Your task to perform on an android device: Search for "custom wallet" on Etsy. Image 0: 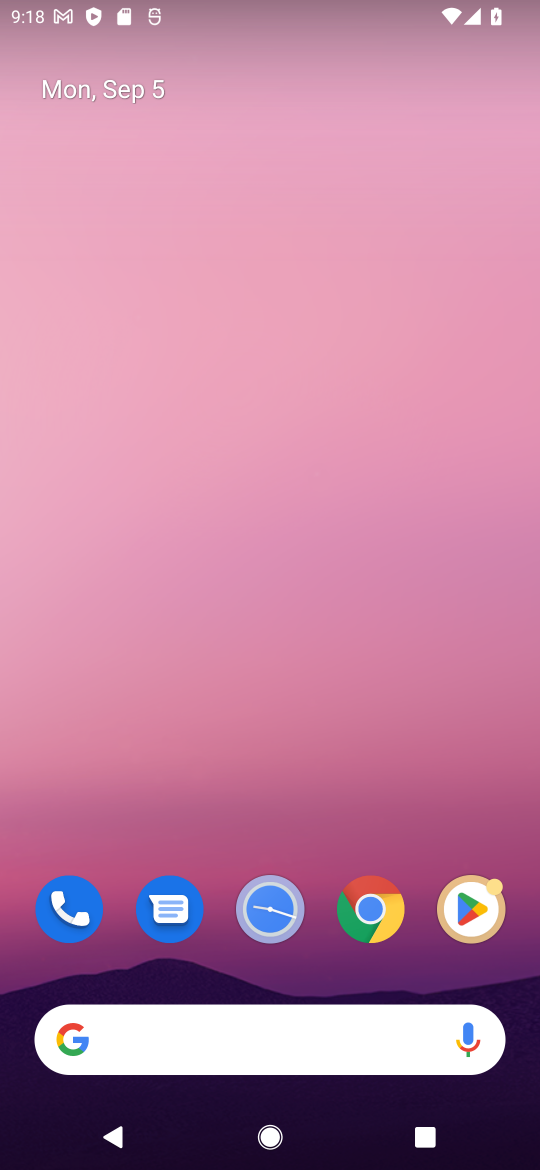
Step 0: click (384, 923)
Your task to perform on an android device: Search for "custom wallet" on Etsy. Image 1: 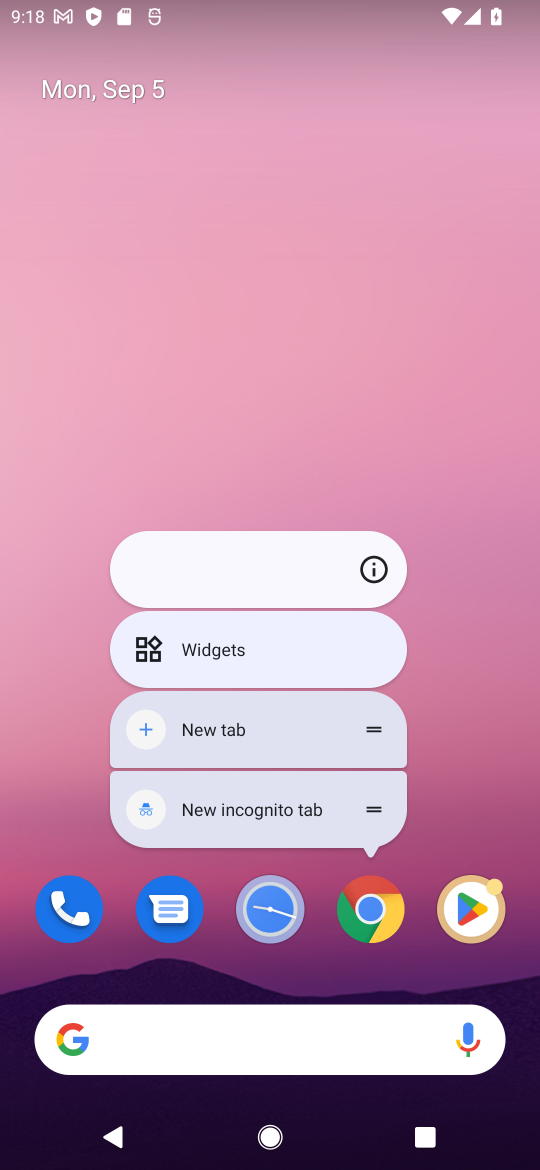
Step 1: click (387, 934)
Your task to perform on an android device: Search for "custom wallet" on Etsy. Image 2: 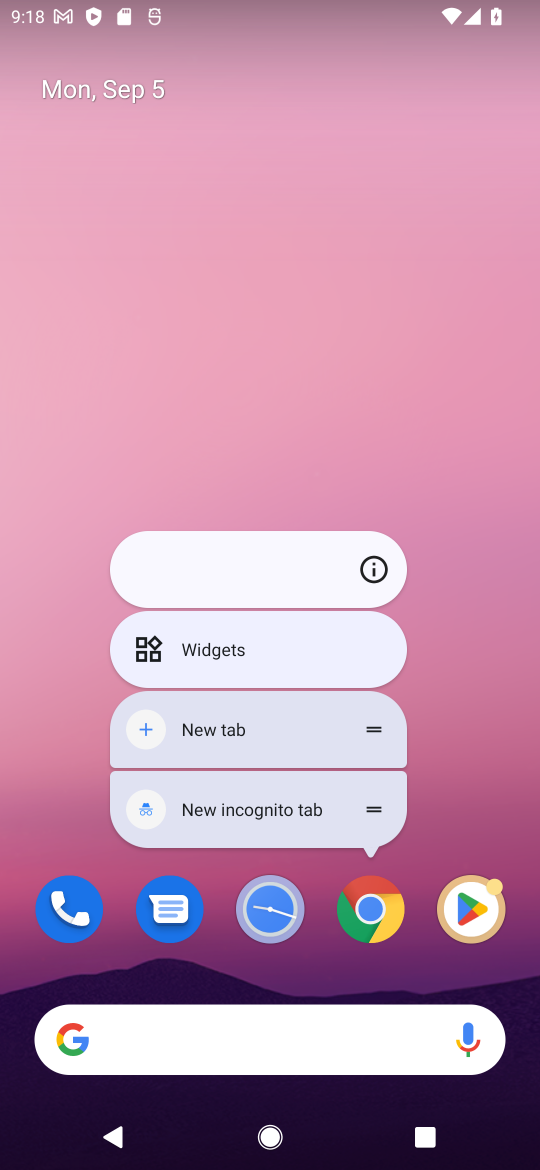
Step 2: click (360, 894)
Your task to perform on an android device: Search for "custom wallet" on Etsy. Image 3: 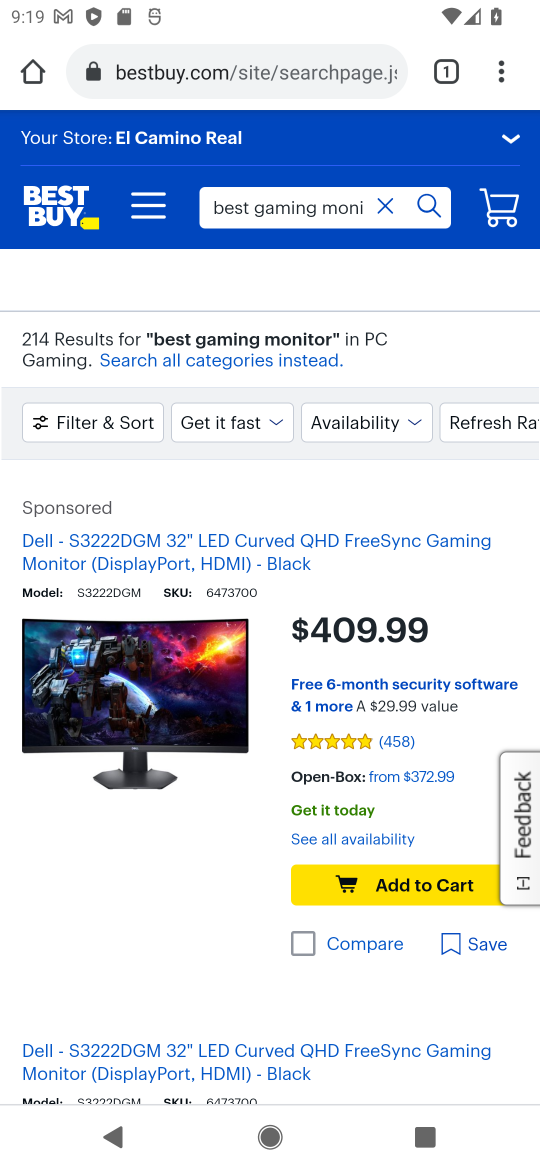
Step 3: click (324, 80)
Your task to perform on an android device: Search for "custom wallet" on Etsy. Image 4: 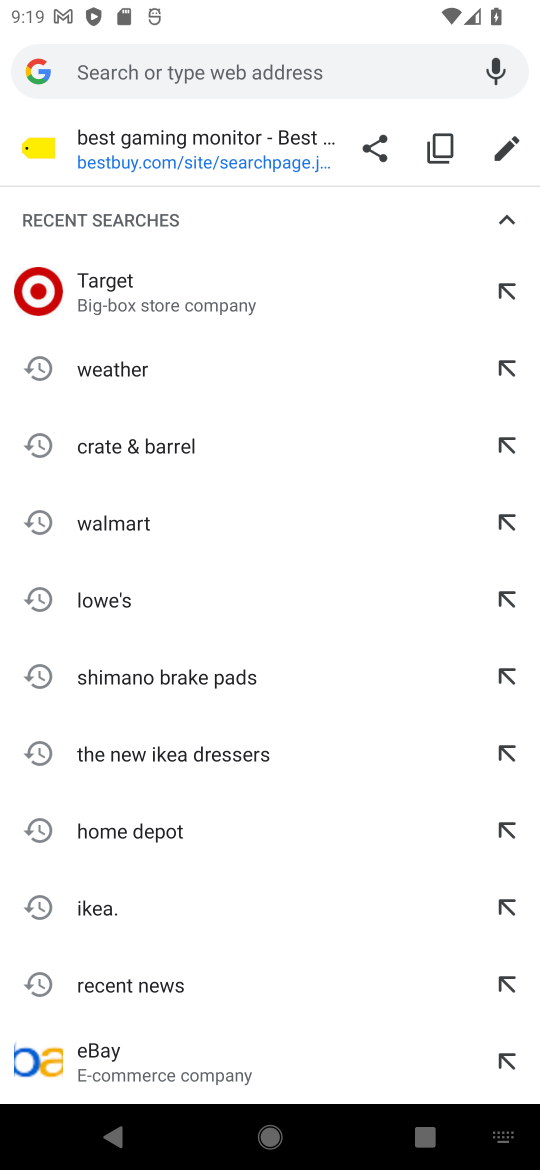
Step 4: type "etsy"
Your task to perform on an android device: Search for "custom wallet" on Etsy. Image 5: 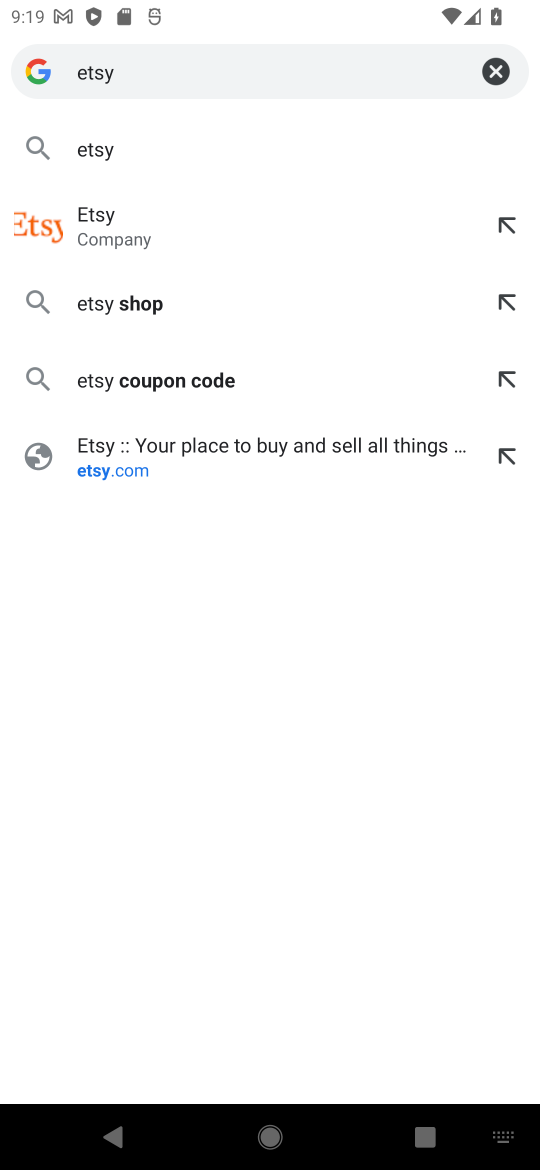
Step 5: click (306, 443)
Your task to perform on an android device: Search for "custom wallet" on Etsy. Image 6: 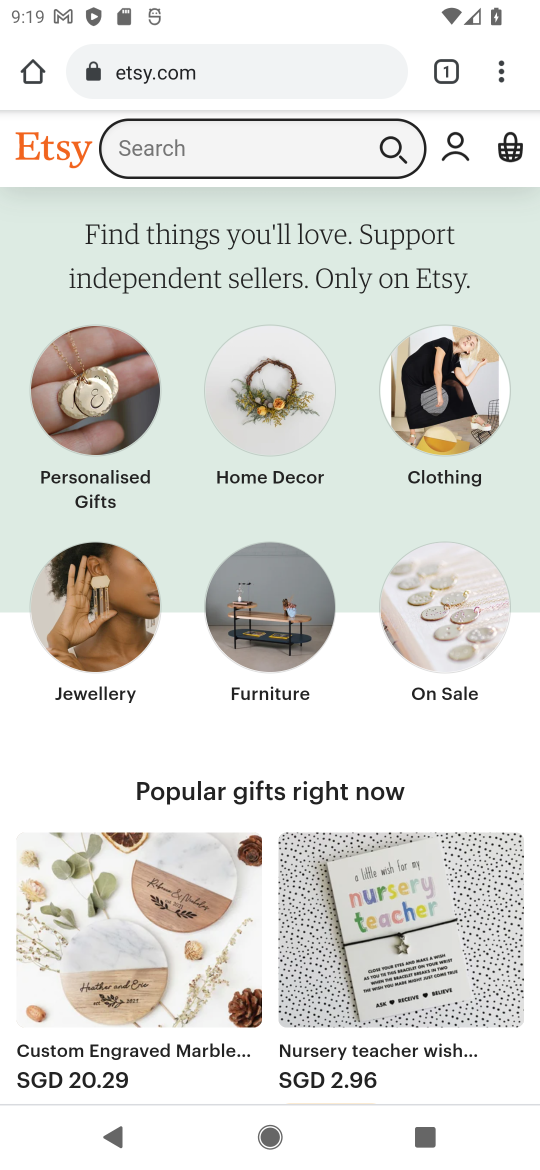
Step 6: click (189, 160)
Your task to perform on an android device: Search for "custom wallet" on Etsy. Image 7: 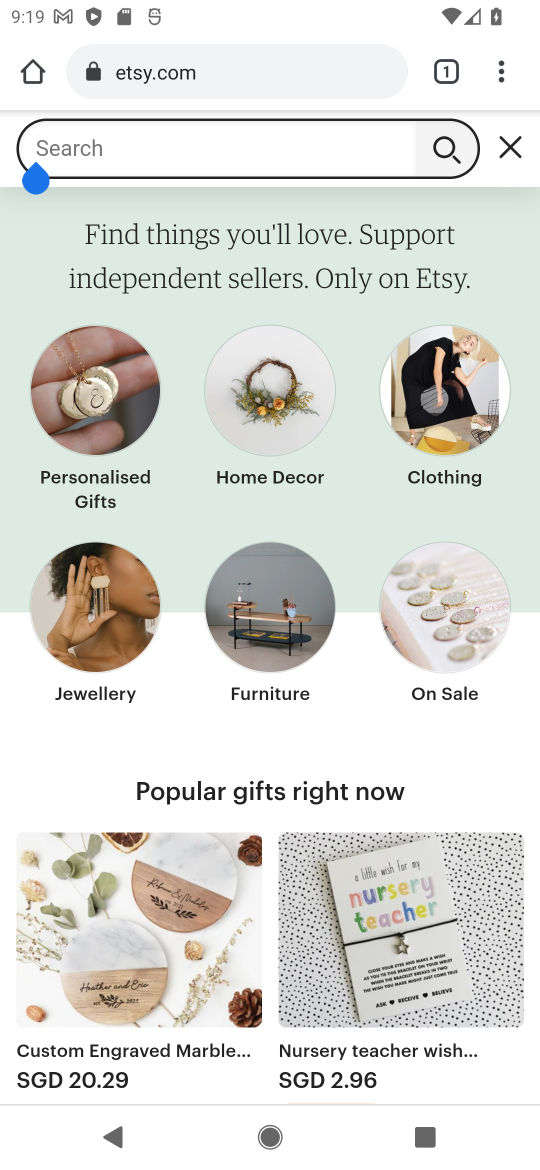
Step 7: type "custom wallet"
Your task to perform on an android device: Search for "custom wallet" on Etsy. Image 8: 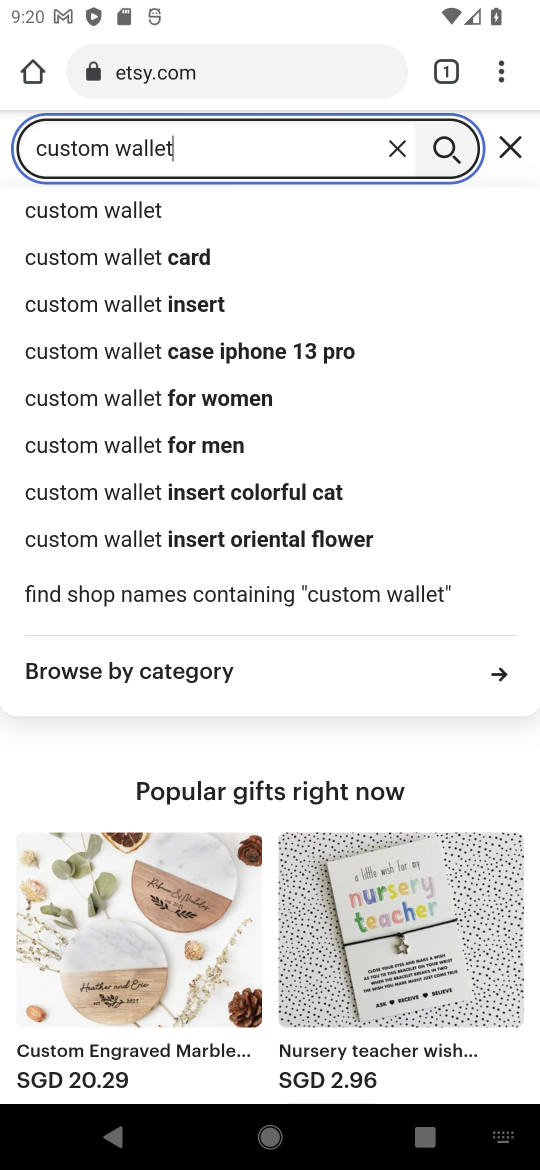
Step 8: click (451, 148)
Your task to perform on an android device: Search for "custom wallet" on Etsy. Image 9: 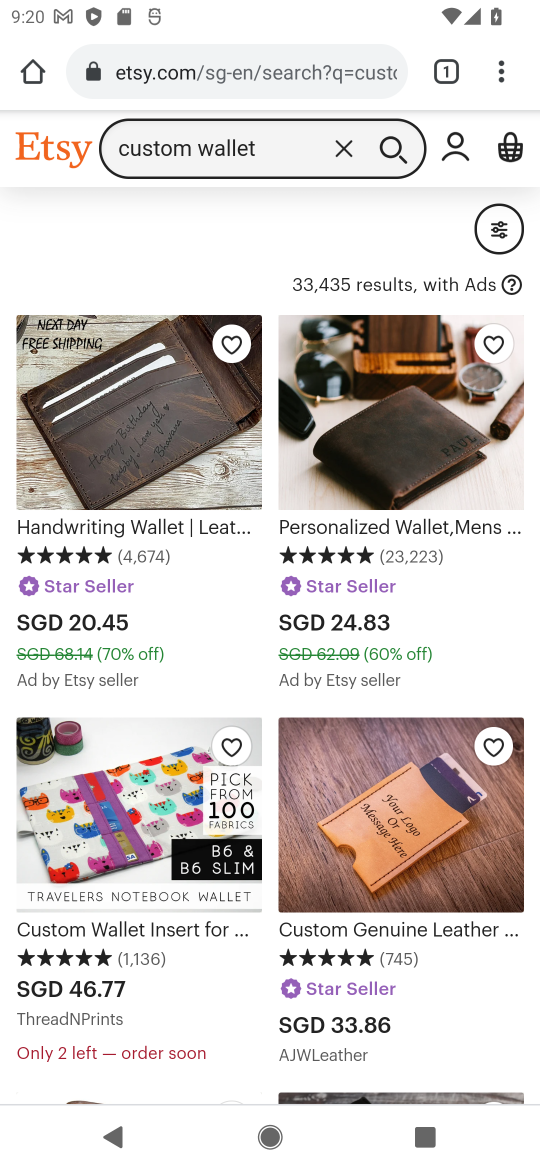
Step 9: task complete